Your task to perform on an android device: install app "Google Play Music" Image 0: 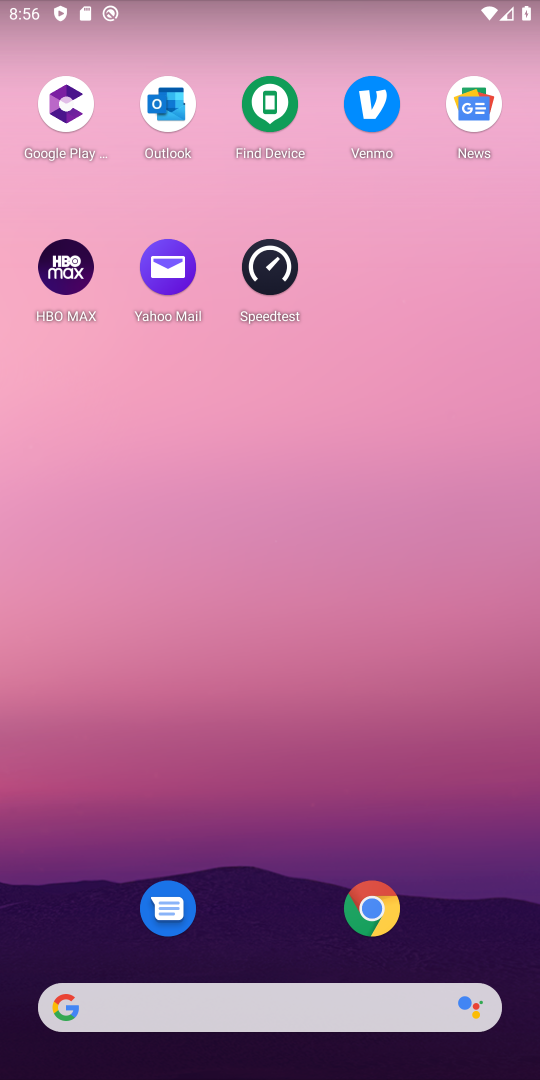
Step 0: drag from (258, 888) to (297, 283)
Your task to perform on an android device: install app "Google Play Music" Image 1: 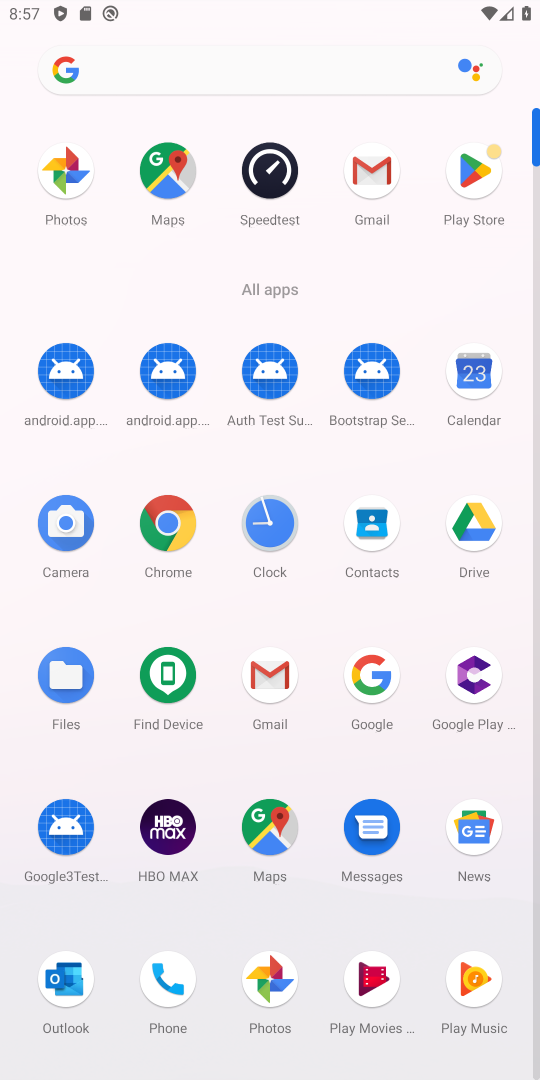
Step 1: click (485, 178)
Your task to perform on an android device: install app "Google Play Music" Image 2: 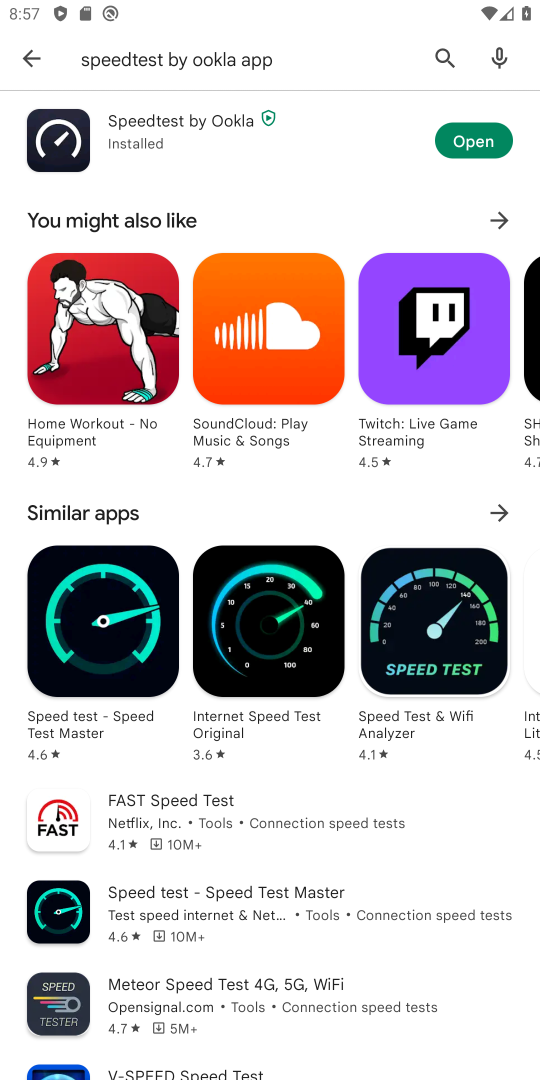
Step 2: click (244, 50)
Your task to perform on an android device: install app "Google Play Music" Image 3: 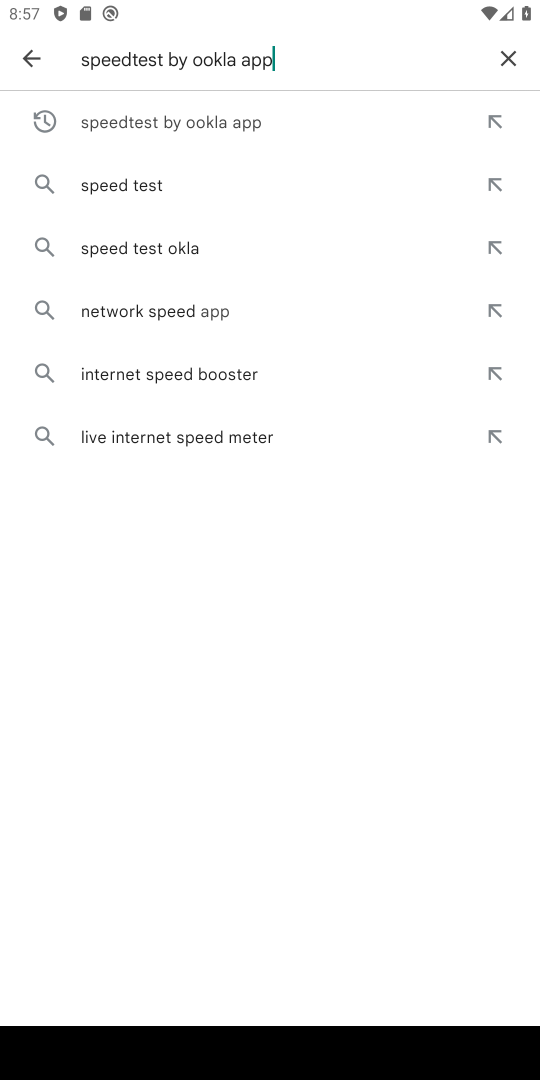
Step 3: click (512, 51)
Your task to perform on an android device: install app "Google Play Music" Image 4: 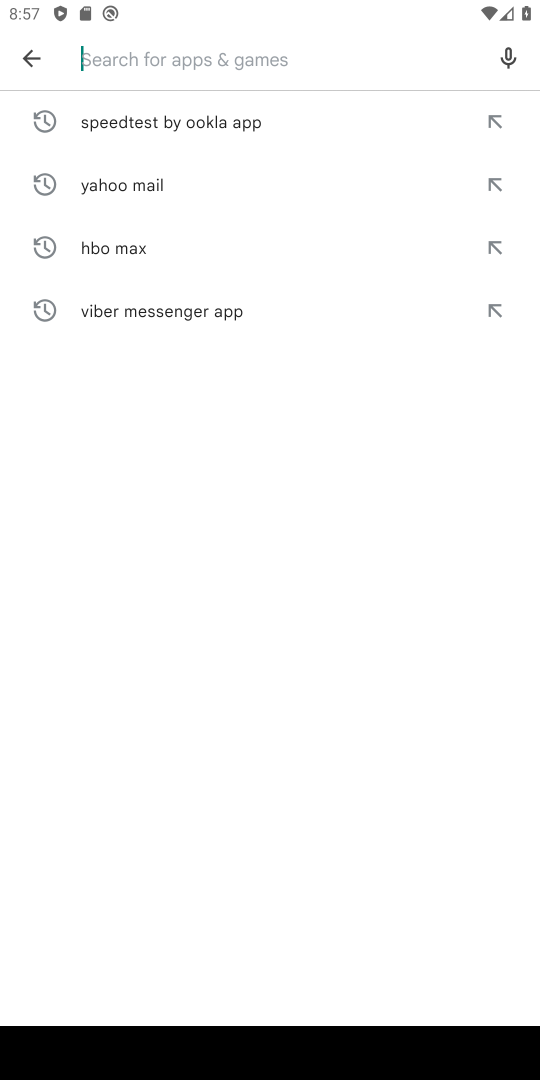
Step 4: type "google play movies"
Your task to perform on an android device: install app "Google Play Music" Image 5: 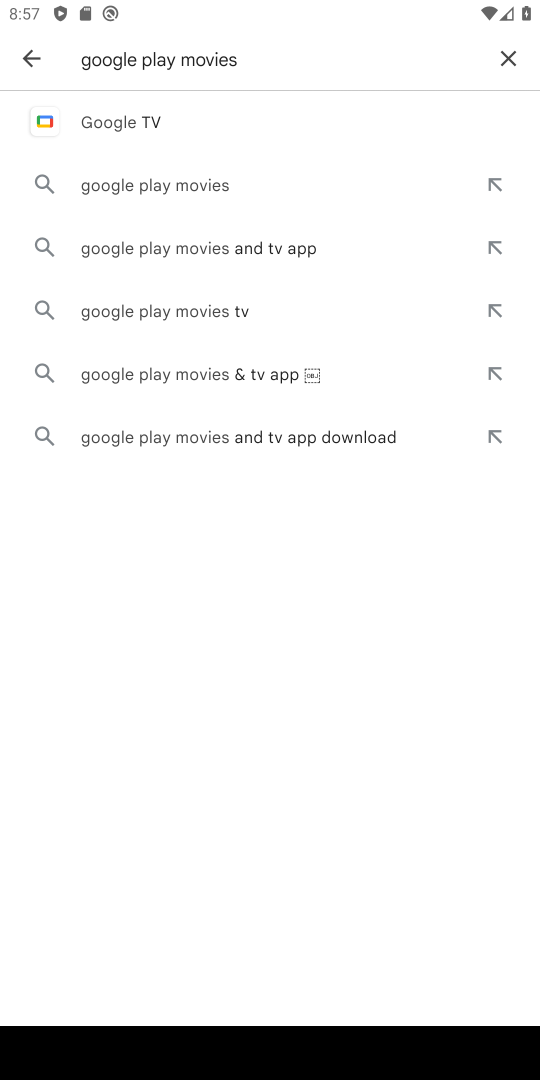
Step 5: click (209, 192)
Your task to perform on an android device: install app "Google Play Music" Image 6: 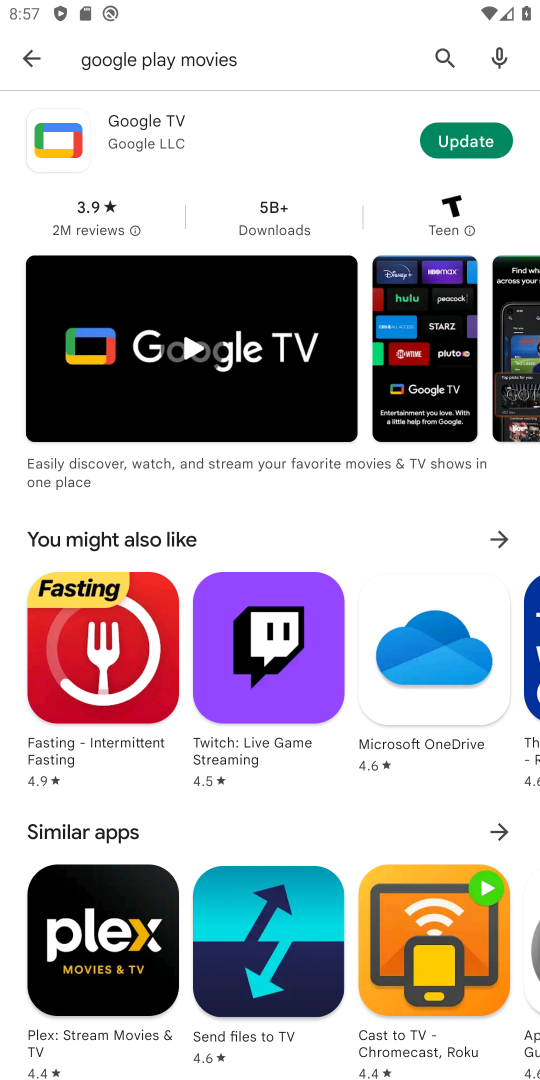
Step 6: task complete